Your task to perform on an android device: Open ESPN.com Image 0: 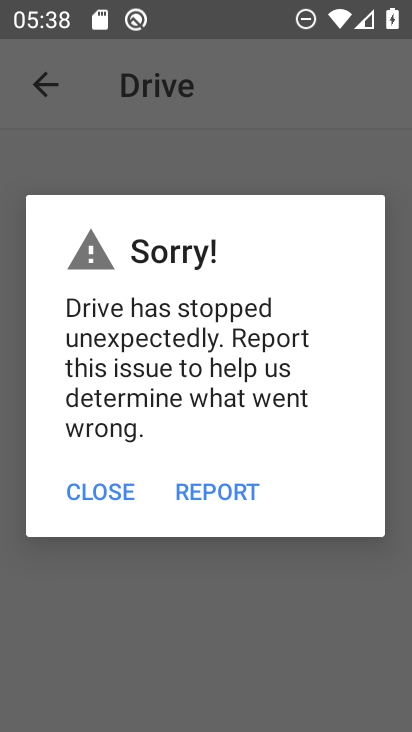
Step 0: press home button
Your task to perform on an android device: Open ESPN.com Image 1: 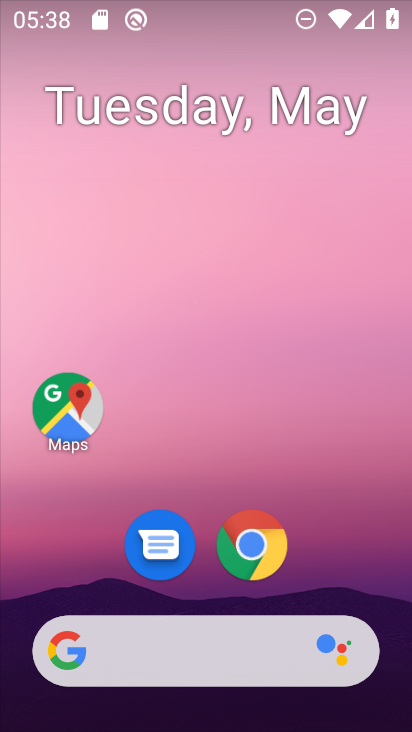
Step 1: drag from (321, 438) to (266, 66)
Your task to perform on an android device: Open ESPN.com Image 2: 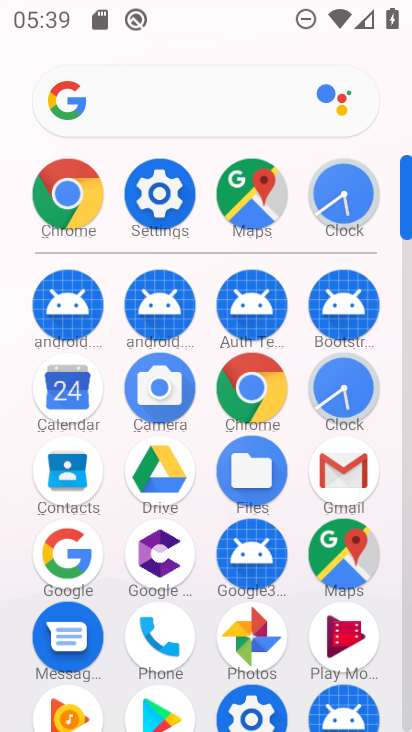
Step 2: click (250, 388)
Your task to perform on an android device: Open ESPN.com Image 3: 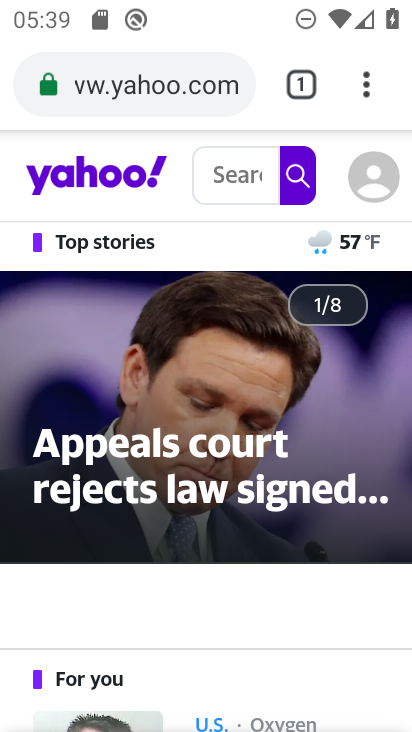
Step 3: click (183, 81)
Your task to perform on an android device: Open ESPN.com Image 4: 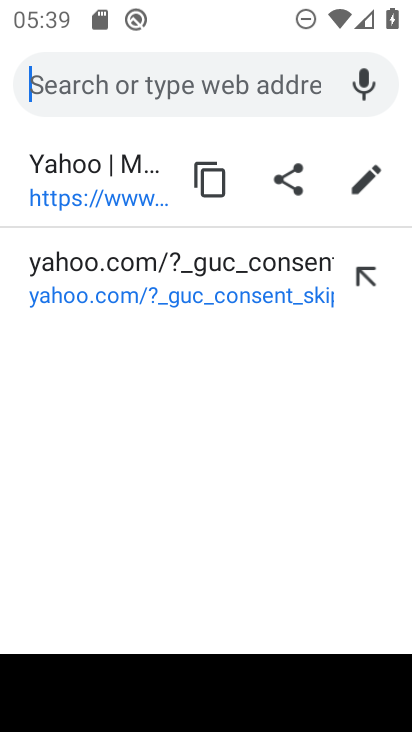
Step 4: type "ESPN.com"
Your task to perform on an android device: Open ESPN.com Image 5: 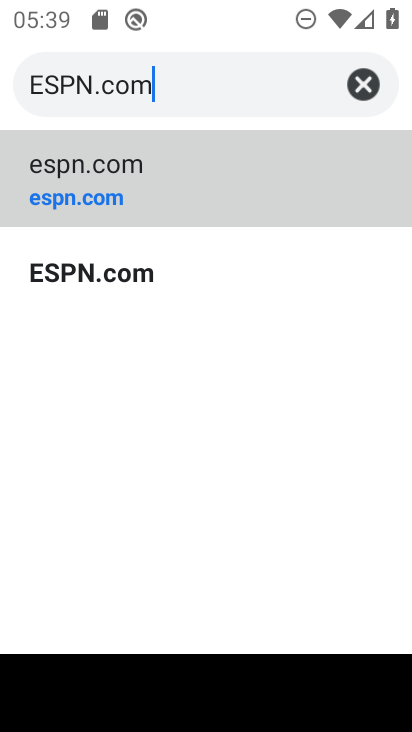
Step 5: click (148, 196)
Your task to perform on an android device: Open ESPN.com Image 6: 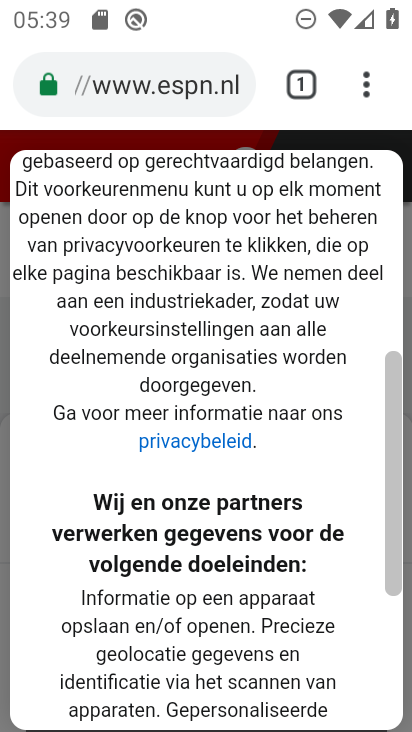
Step 6: task complete